Your task to perform on an android device: open wifi settings Image 0: 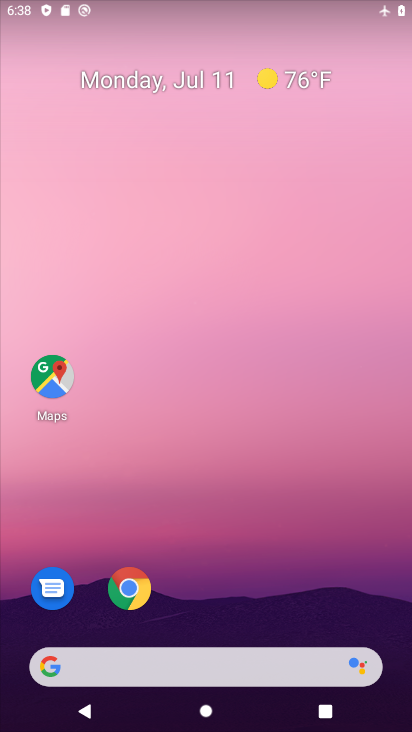
Step 0: drag from (257, 550) to (178, 42)
Your task to perform on an android device: open wifi settings Image 1: 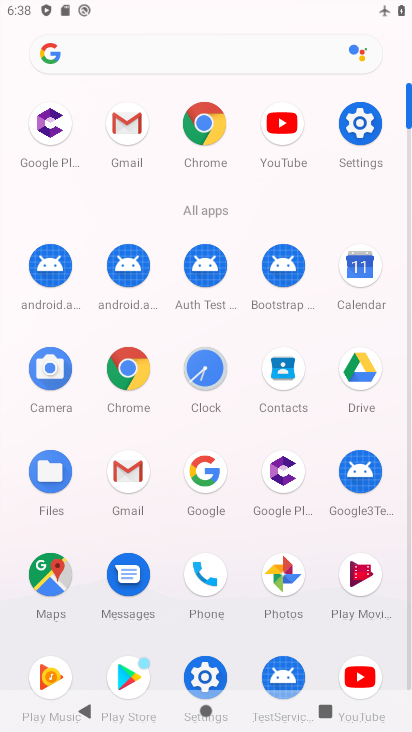
Step 1: click (358, 124)
Your task to perform on an android device: open wifi settings Image 2: 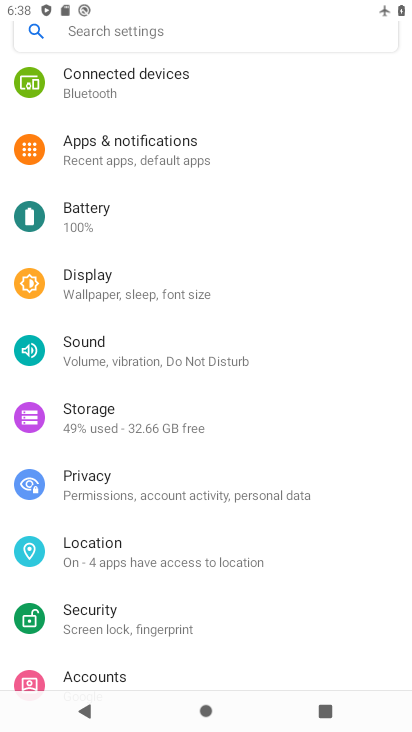
Step 2: drag from (241, 138) to (227, 519)
Your task to perform on an android device: open wifi settings Image 3: 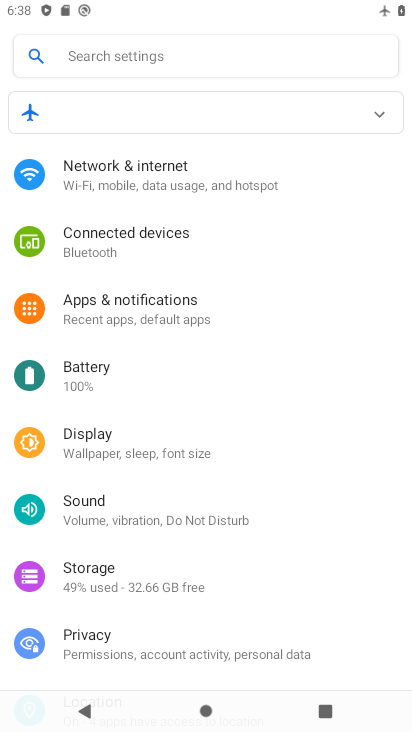
Step 3: click (140, 175)
Your task to perform on an android device: open wifi settings Image 4: 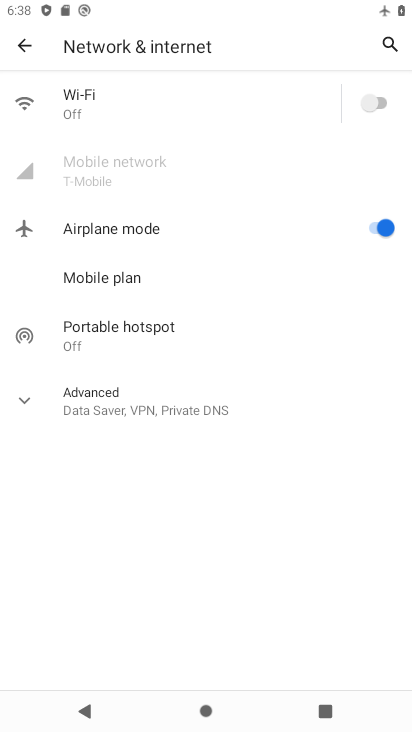
Step 4: click (195, 97)
Your task to perform on an android device: open wifi settings Image 5: 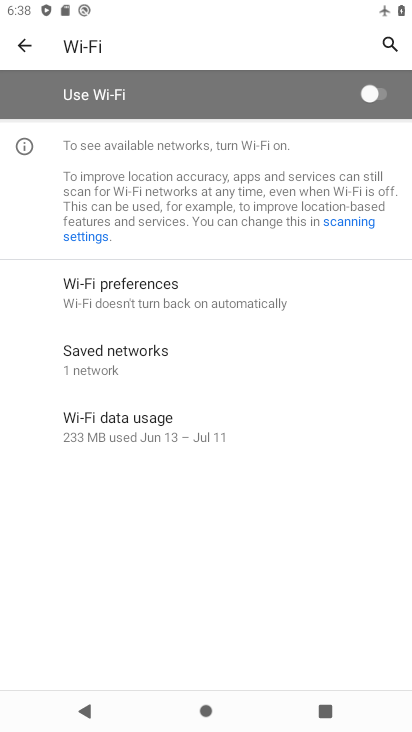
Step 5: task complete